Your task to perform on an android device: delete location history Image 0: 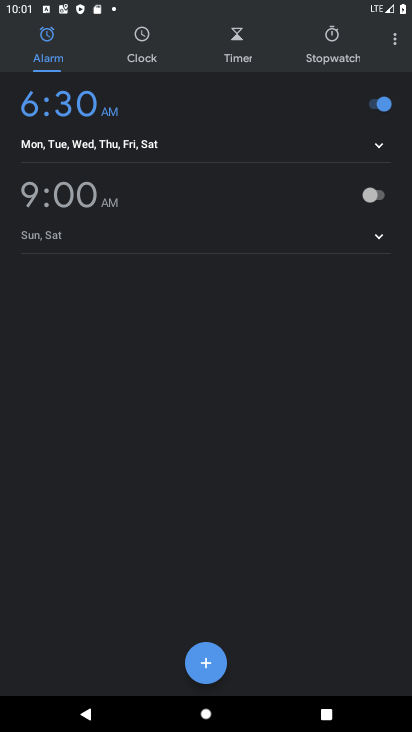
Step 0: press home button
Your task to perform on an android device: delete location history Image 1: 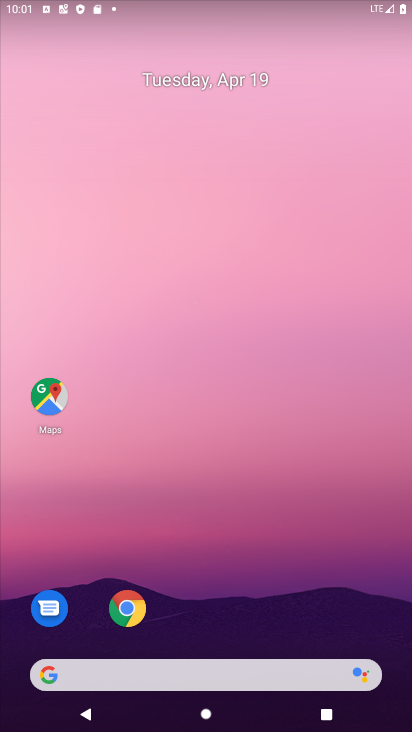
Step 1: click (50, 397)
Your task to perform on an android device: delete location history Image 2: 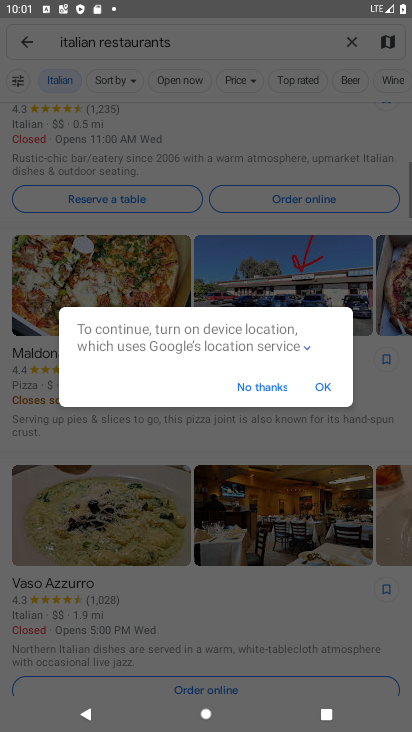
Step 2: press back button
Your task to perform on an android device: delete location history Image 3: 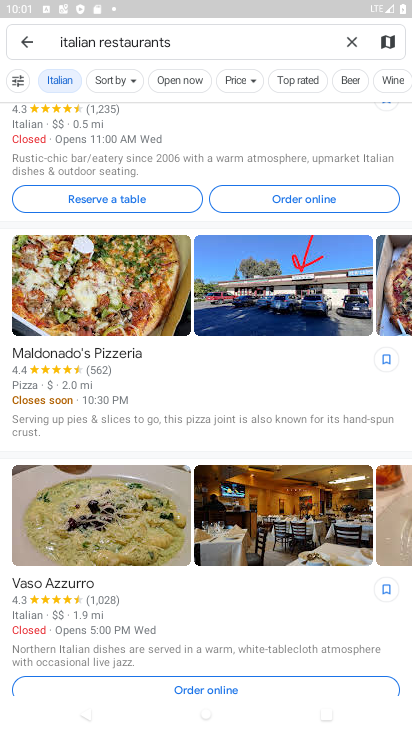
Step 3: press back button
Your task to perform on an android device: delete location history Image 4: 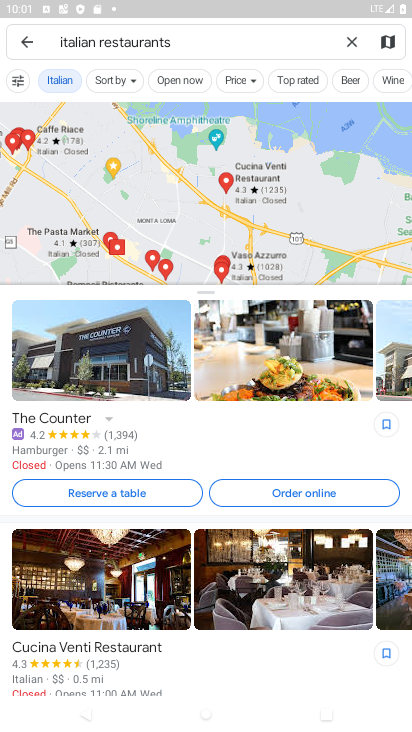
Step 4: press back button
Your task to perform on an android device: delete location history Image 5: 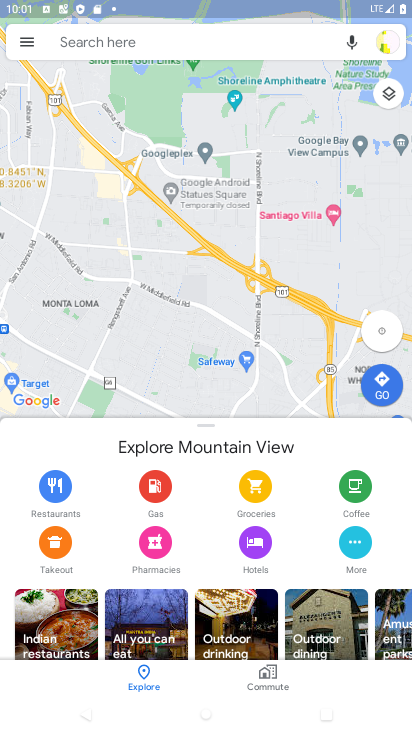
Step 5: click (21, 39)
Your task to perform on an android device: delete location history Image 6: 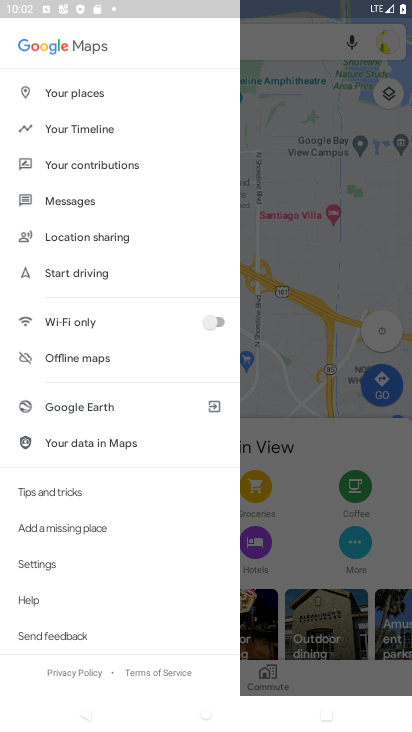
Step 6: click (45, 562)
Your task to perform on an android device: delete location history Image 7: 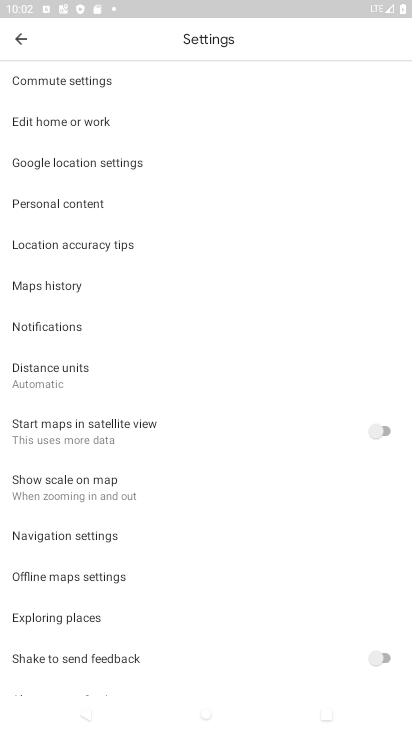
Step 7: click (76, 203)
Your task to perform on an android device: delete location history Image 8: 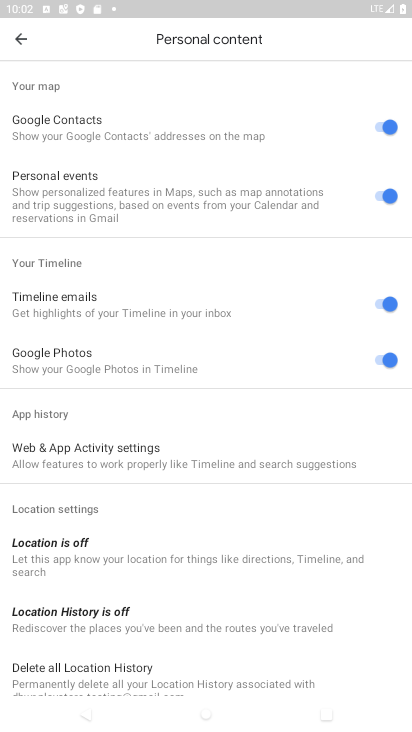
Step 8: drag from (282, 544) to (282, 288)
Your task to perform on an android device: delete location history Image 9: 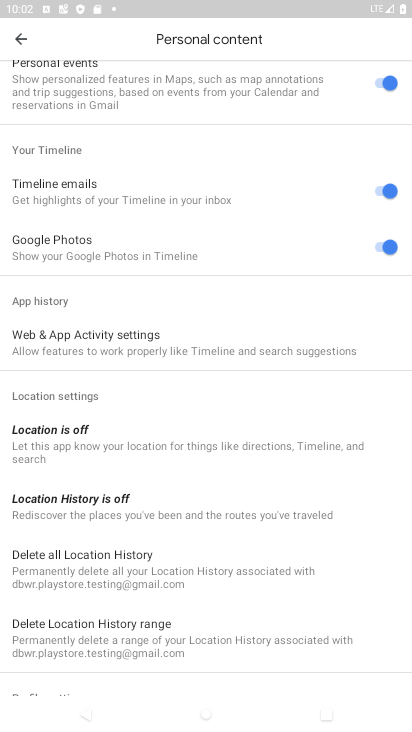
Step 9: click (61, 568)
Your task to perform on an android device: delete location history Image 10: 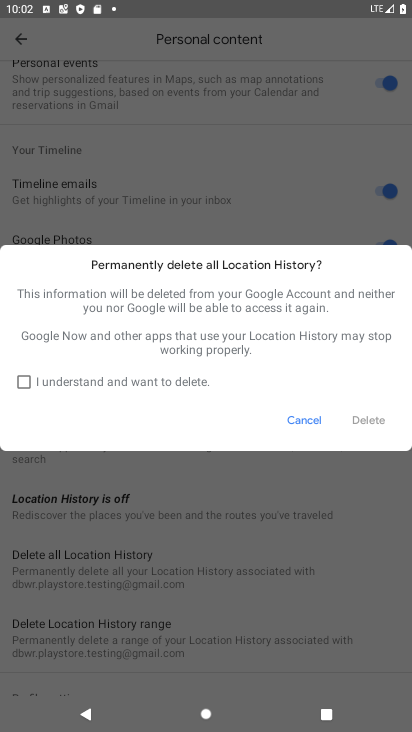
Step 10: click (21, 386)
Your task to perform on an android device: delete location history Image 11: 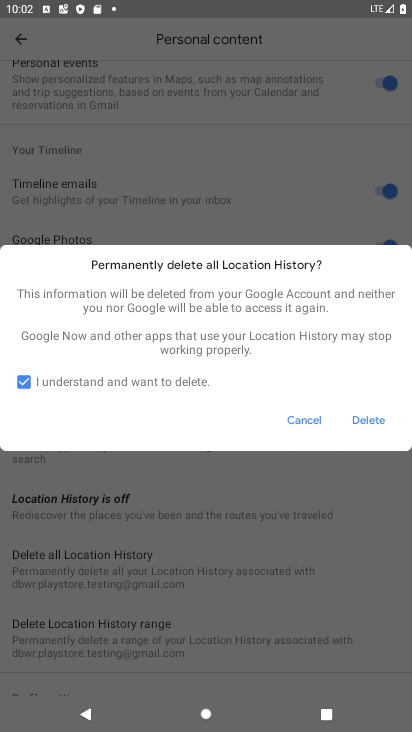
Step 11: click (368, 419)
Your task to perform on an android device: delete location history Image 12: 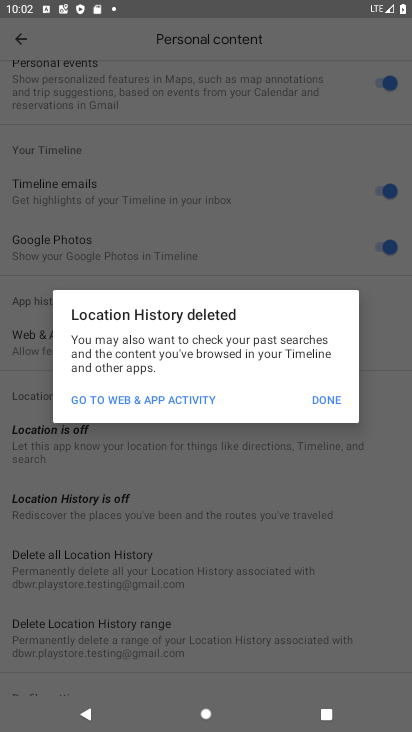
Step 12: click (316, 399)
Your task to perform on an android device: delete location history Image 13: 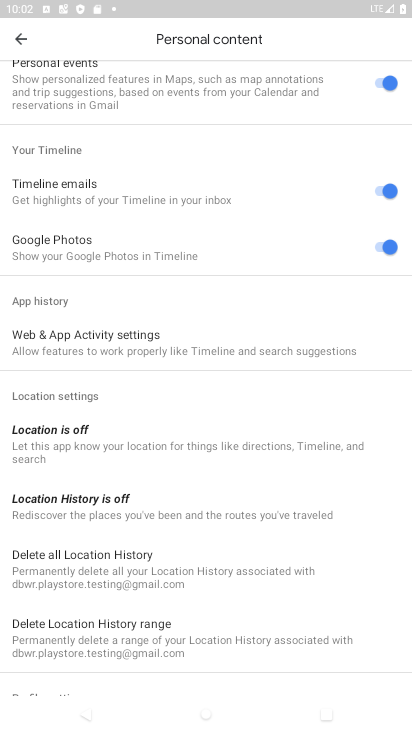
Step 13: task complete